Your task to perform on an android device: Is it going to rain tomorrow? Image 0: 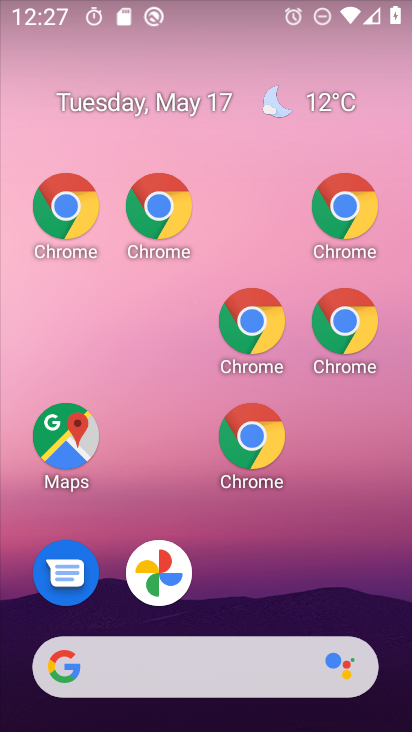
Step 0: drag from (305, 588) to (243, 198)
Your task to perform on an android device: Is it going to rain tomorrow? Image 1: 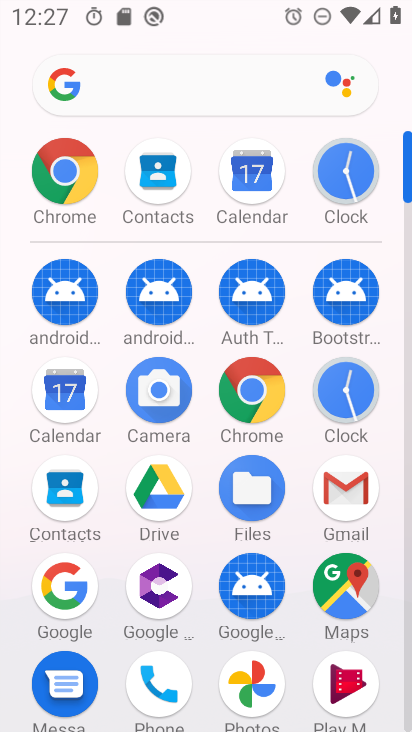
Step 1: press back button
Your task to perform on an android device: Is it going to rain tomorrow? Image 2: 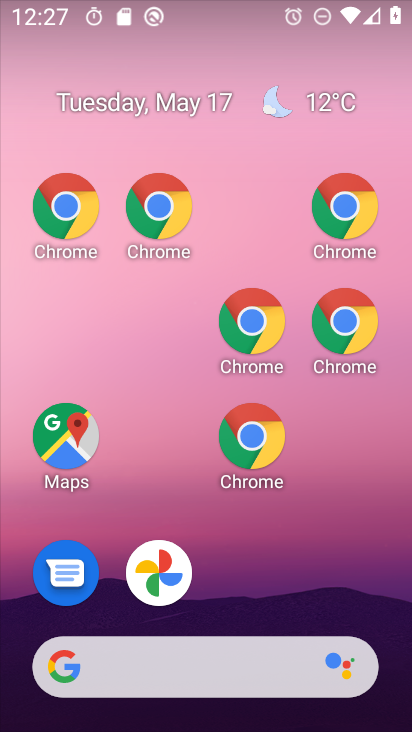
Step 2: drag from (70, 249) to (404, 672)
Your task to perform on an android device: Is it going to rain tomorrow? Image 3: 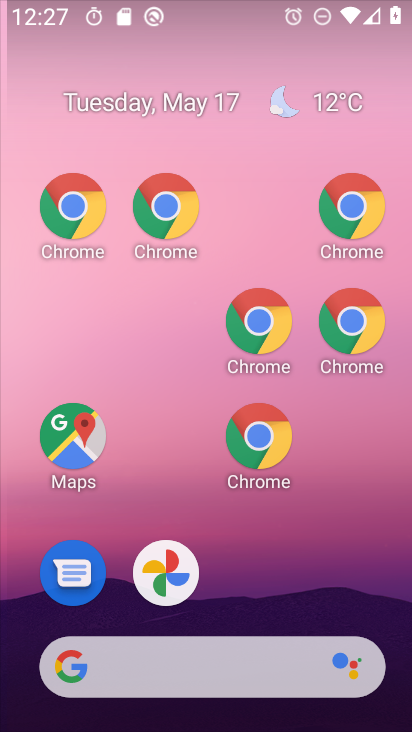
Step 3: drag from (10, 262) to (365, 432)
Your task to perform on an android device: Is it going to rain tomorrow? Image 4: 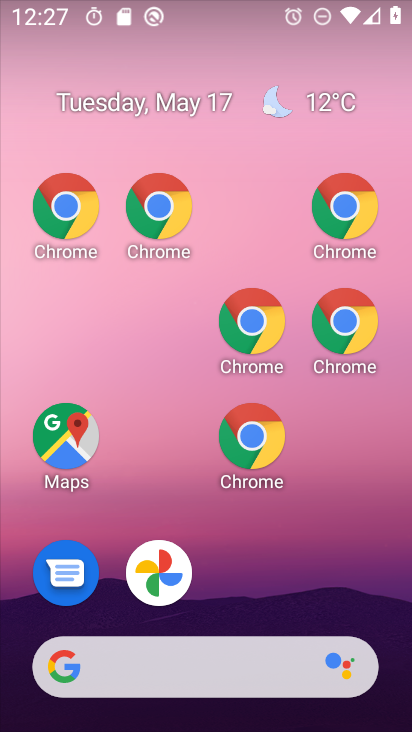
Step 4: drag from (233, 650) to (395, 175)
Your task to perform on an android device: Is it going to rain tomorrow? Image 5: 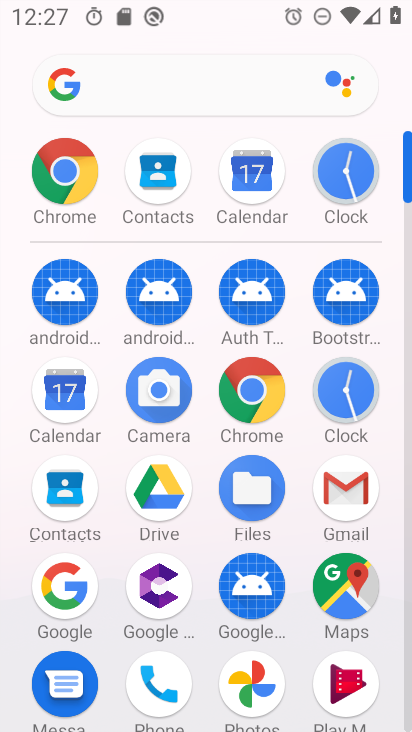
Step 5: click (224, 128)
Your task to perform on an android device: Is it going to rain tomorrow? Image 6: 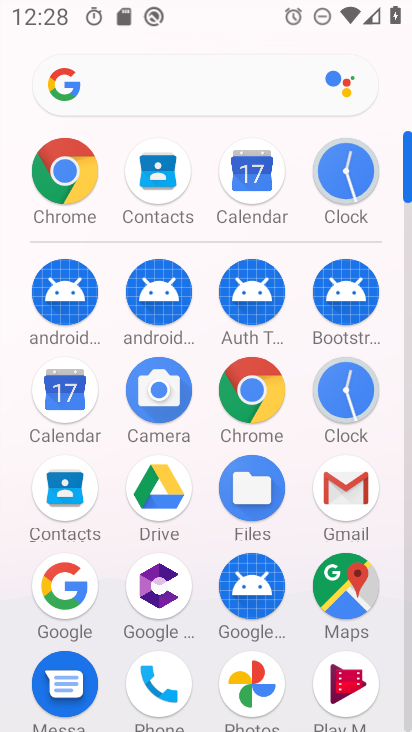
Step 6: press back button
Your task to perform on an android device: Is it going to rain tomorrow? Image 7: 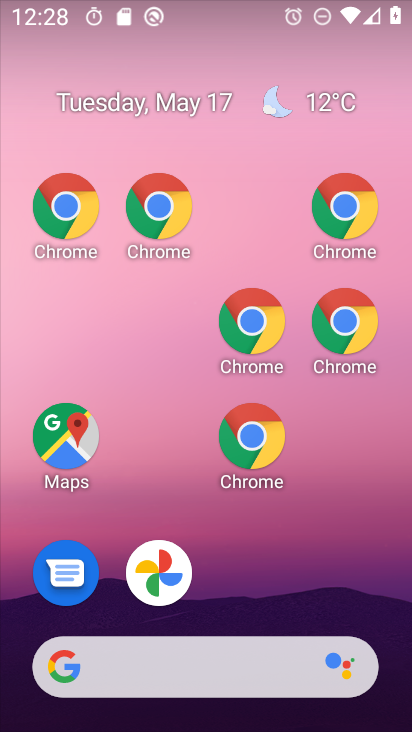
Step 7: drag from (20, 248) to (271, 715)
Your task to perform on an android device: Is it going to rain tomorrow? Image 8: 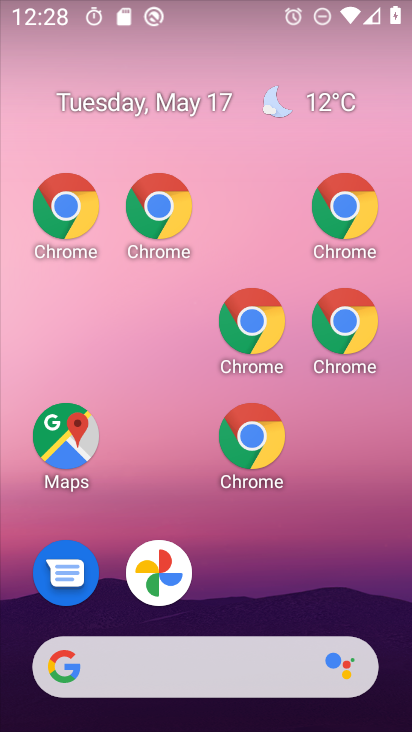
Step 8: drag from (1, 251) to (407, 588)
Your task to perform on an android device: Is it going to rain tomorrow? Image 9: 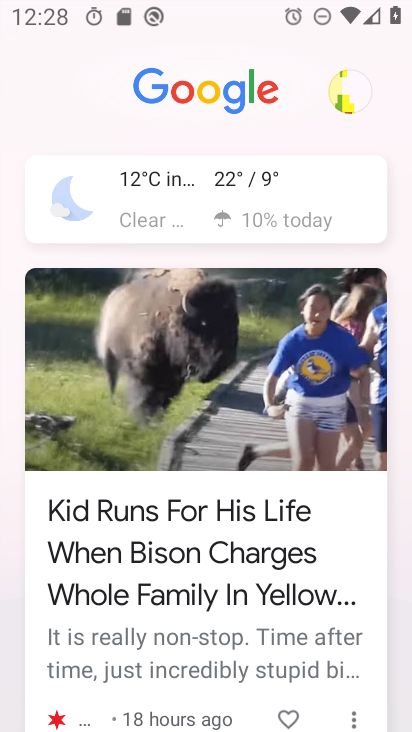
Step 9: click (196, 211)
Your task to perform on an android device: Is it going to rain tomorrow? Image 10: 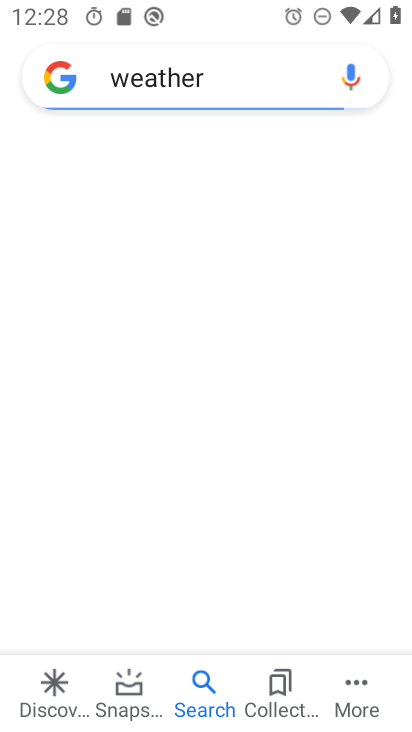
Step 10: click (196, 211)
Your task to perform on an android device: Is it going to rain tomorrow? Image 11: 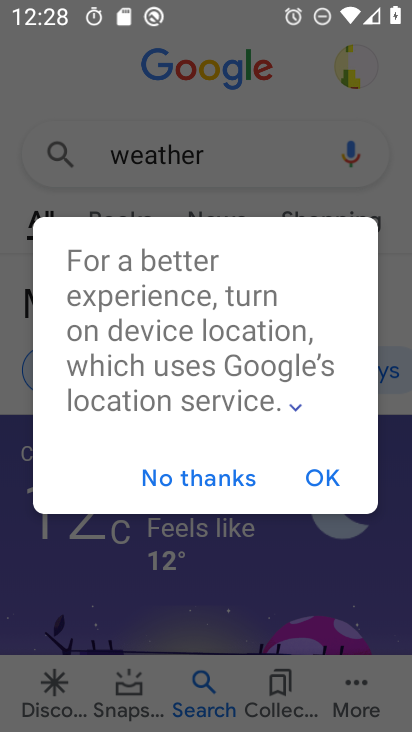
Step 11: click (407, 672)
Your task to perform on an android device: Is it going to rain tomorrow? Image 12: 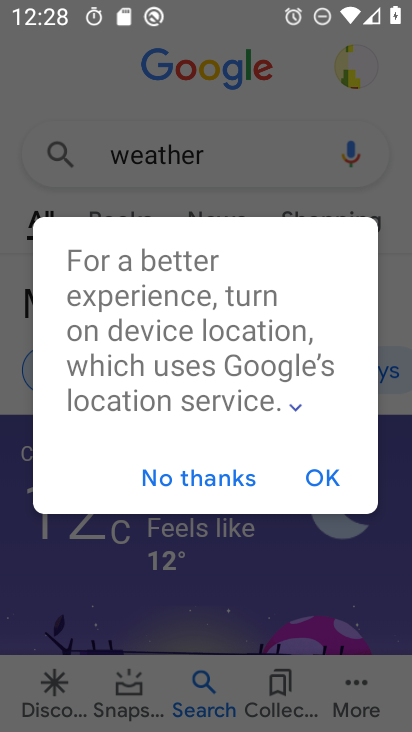
Step 12: click (231, 477)
Your task to perform on an android device: Is it going to rain tomorrow? Image 13: 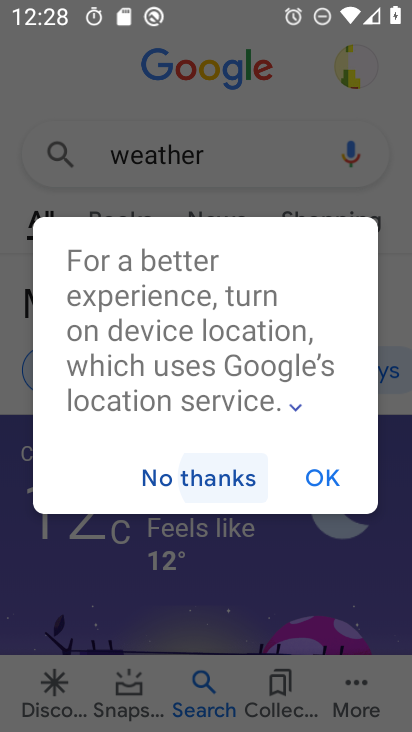
Step 13: click (239, 481)
Your task to perform on an android device: Is it going to rain tomorrow? Image 14: 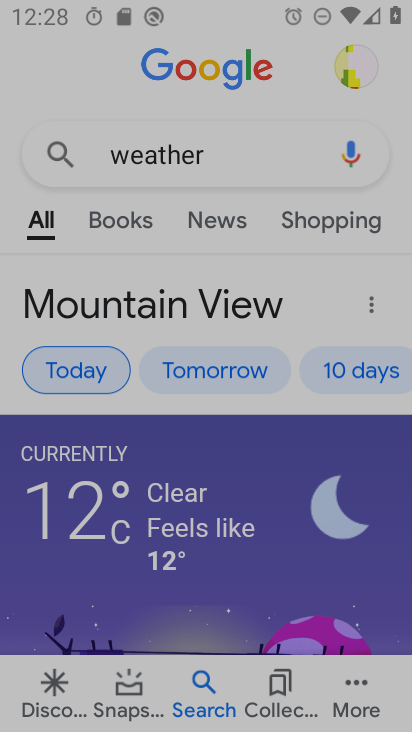
Step 14: click (247, 483)
Your task to perform on an android device: Is it going to rain tomorrow? Image 15: 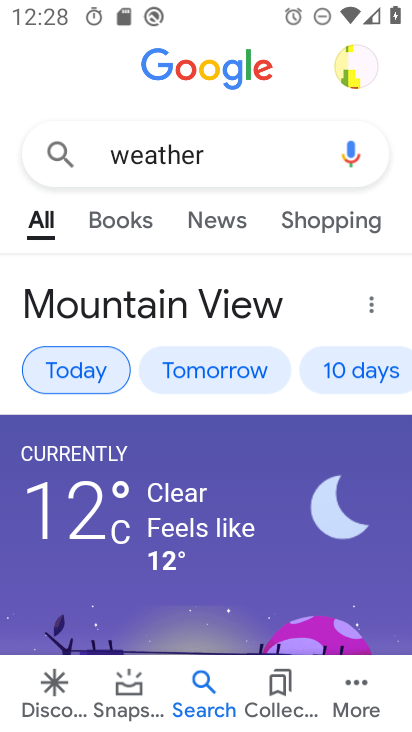
Step 15: click (217, 370)
Your task to perform on an android device: Is it going to rain tomorrow? Image 16: 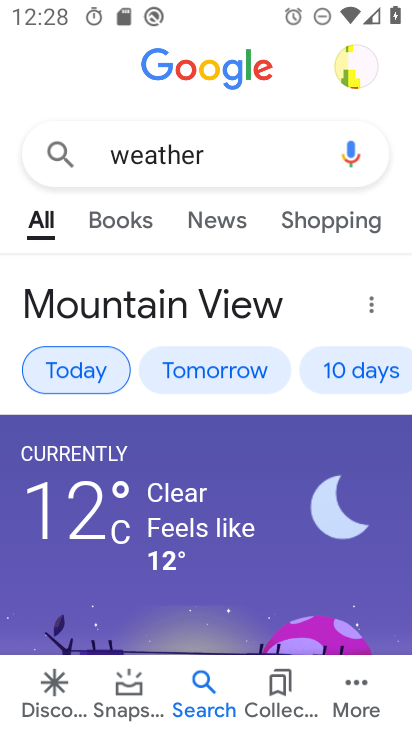
Step 16: click (227, 368)
Your task to perform on an android device: Is it going to rain tomorrow? Image 17: 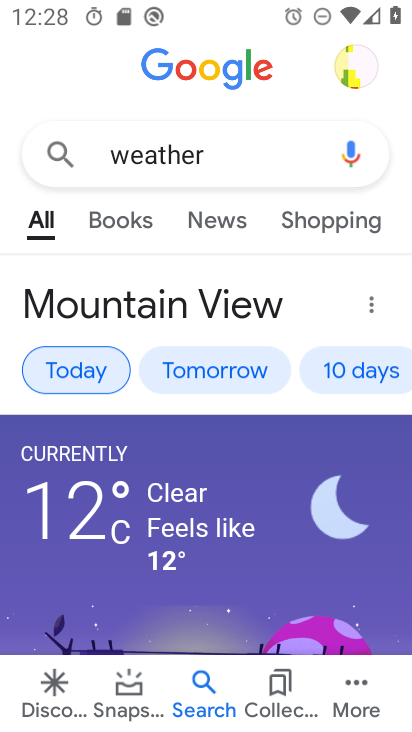
Step 17: click (235, 369)
Your task to perform on an android device: Is it going to rain tomorrow? Image 18: 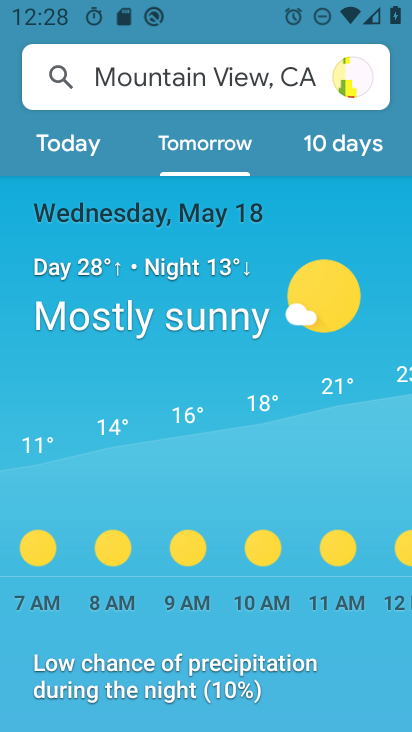
Step 18: task complete